Your task to perform on an android device: clear all cookies in the chrome app Image 0: 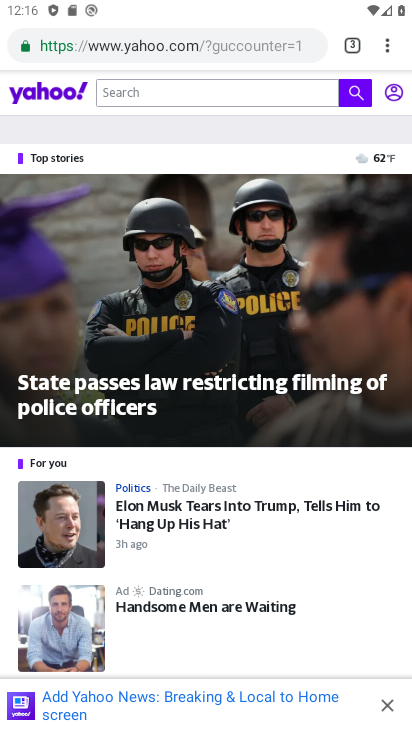
Step 0: click (395, 52)
Your task to perform on an android device: clear all cookies in the chrome app Image 1: 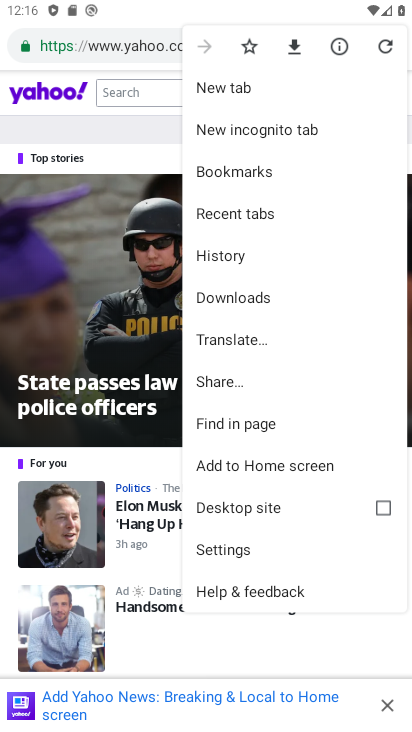
Step 1: click (230, 261)
Your task to perform on an android device: clear all cookies in the chrome app Image 2: 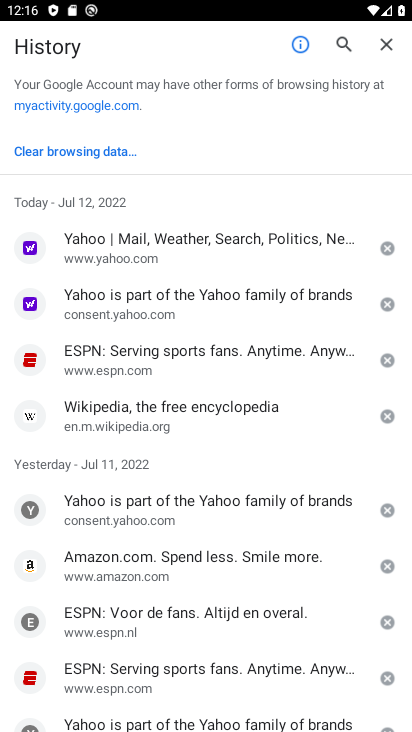
Step 2: click (113, 149)
Your task to perform on an android device: clear all cookies in the chrome app Image 3: 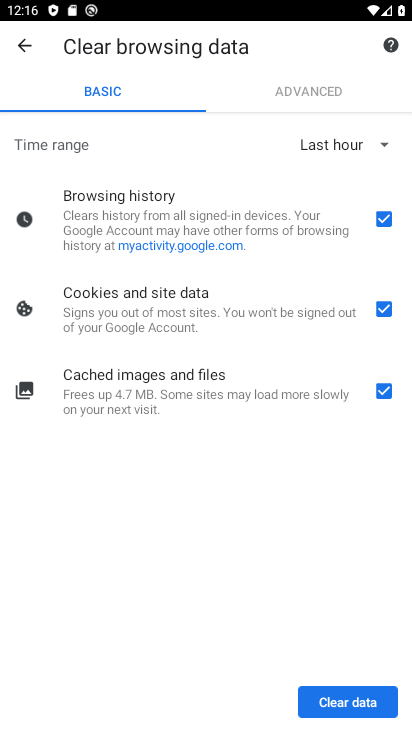
Step 3: click (382, 224)
Your task to perform on an android device: clear all cookies in the chrome app Image 4: 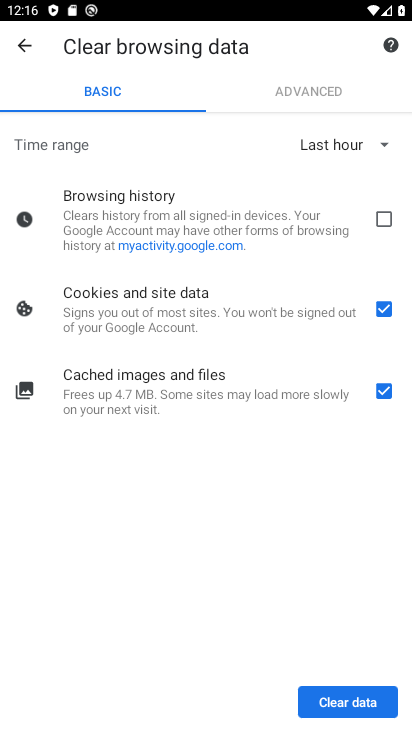
Step 4: click (381, 397)
Your task to perform on an android device: clear all cookies in the chrome app Image 5: 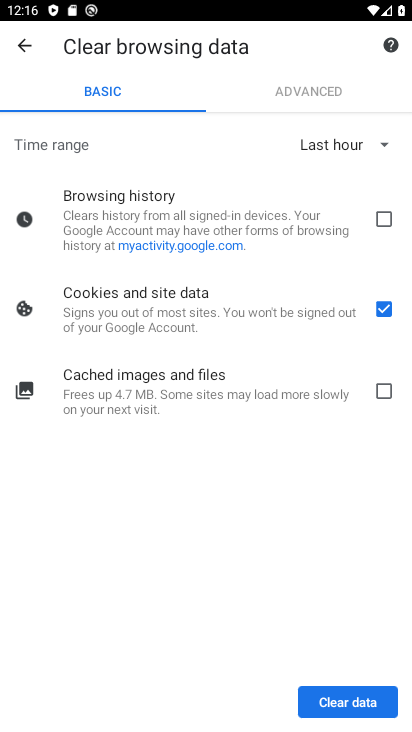
Step 5: click (384, 144)
Your task to perform on an android device: clear all cookies in the chrome app Image 6: 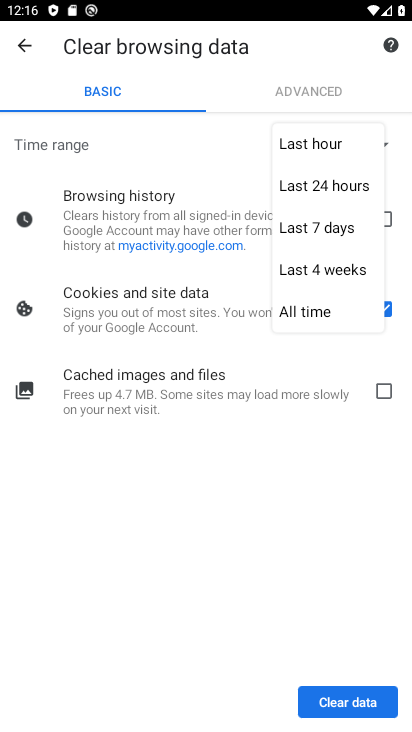
Step 6: click (306, 304)
Your task to perform on an android device: clear all cookies in the chrome app Image 7: 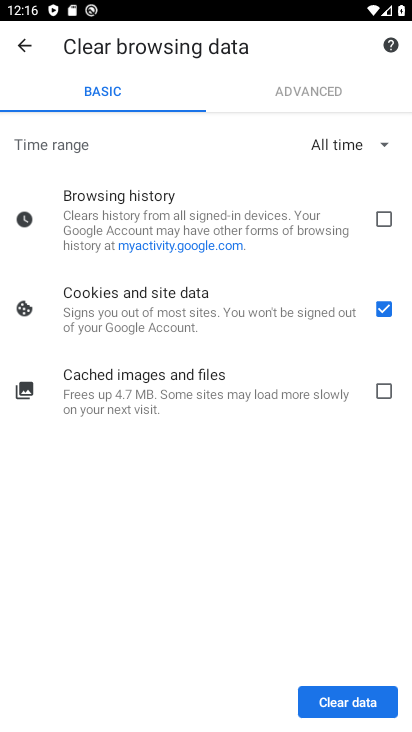
Step 7: click (330, 701)
Your task to perform on an android device: clear all cookies in the chrome app Image 8: 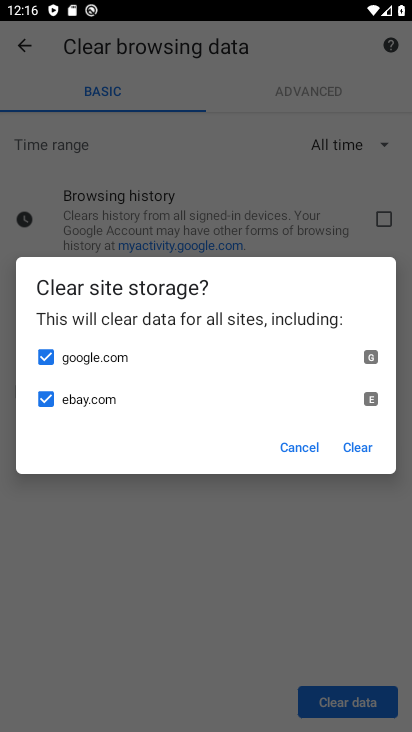
Step 8: click (358, 453)
Your task to perform on an android device: clear all cookies in the chrome app Image 9: 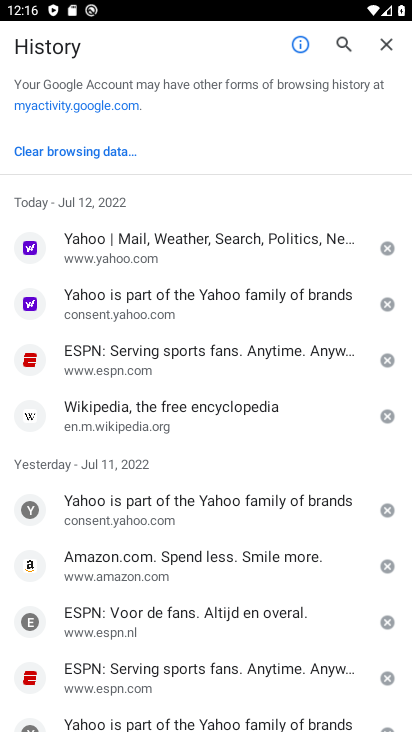
Step 9: task complete